Your task to perform on an android device: move a message to another label in the gmail app Image 0: 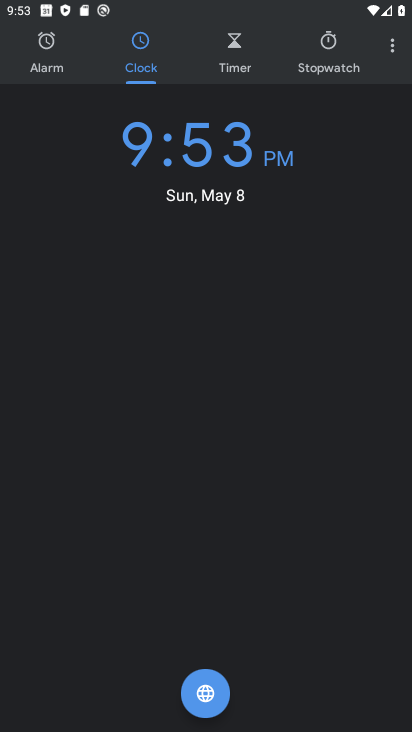
Step 0: press home button
Your task to perform on an android device: move a message to another label in the gmail app Image 1: 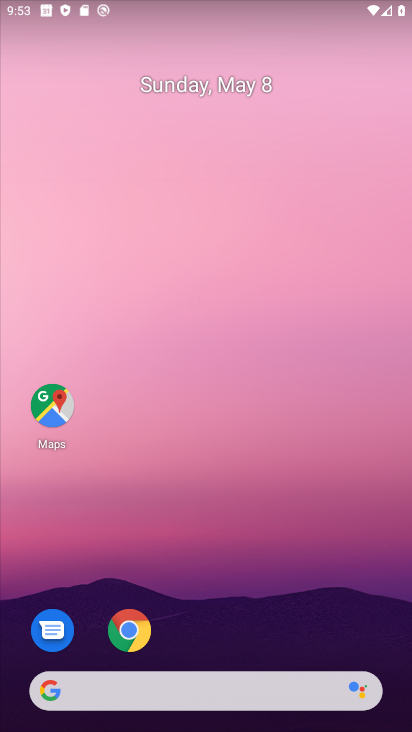
Step 1: drag from (223, 728) to (206, 184)
Your task to perform on an android device: move a message to another label in the gmail app Image 2: 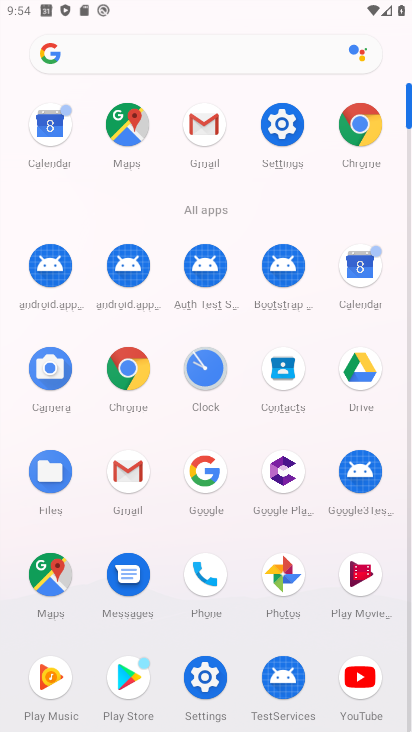
Step 2: click (129, 462)
Your task to perform on an android device: move a message to another label in the gmail app Image 3: 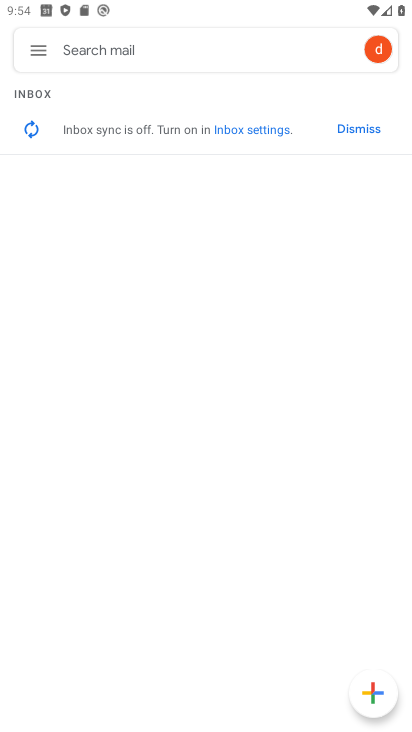
Step 3: task complete